Your task to perform on an android device: Open Yahoo.com Image 0: 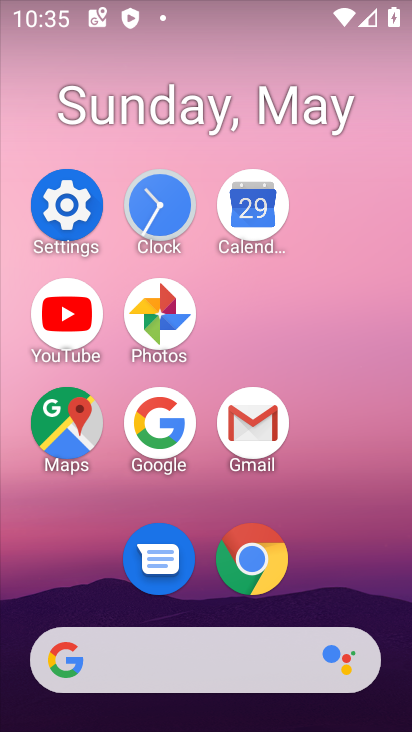
Step 0: click (259, 551)
Your task to perform on an android device: Open Yahoo.com Image 1: 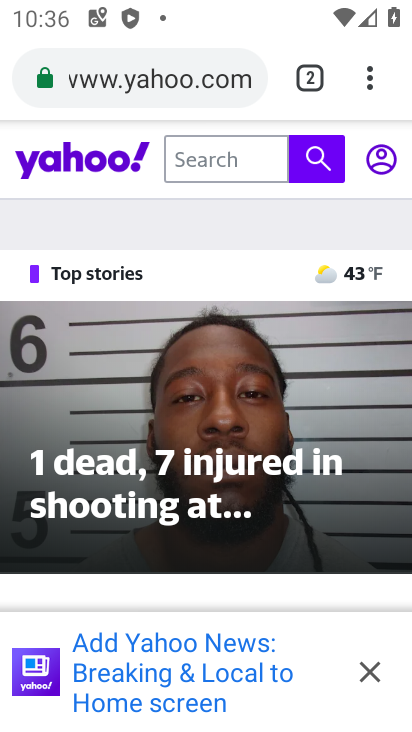
Step 1: task complete